Your task to perform on an android device: toggle improve location accuracy Image 0: 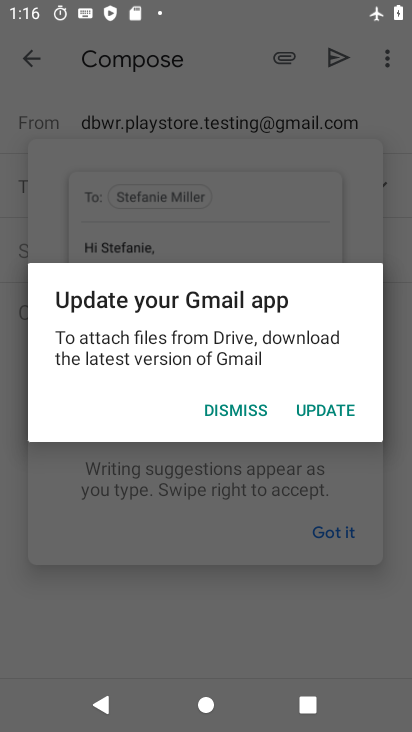
Step 0: press home button
Your task to perform on an android device: toggle improve location accuracy Image 1: 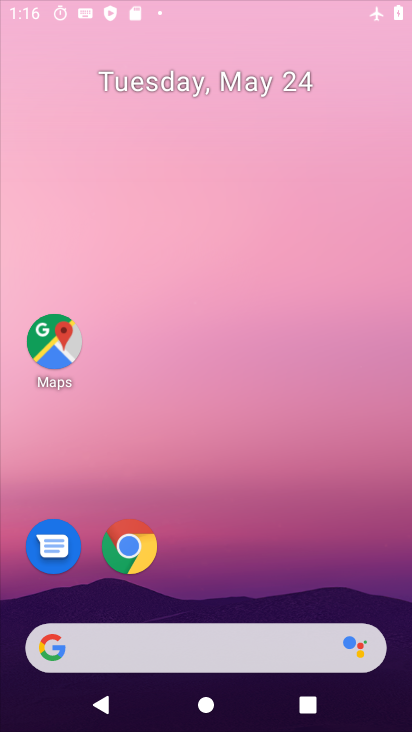
Step 1: drag from (240, 666) to (286, 129)
Your task to perform on an android device: toggle improve location accuracy Image 2: 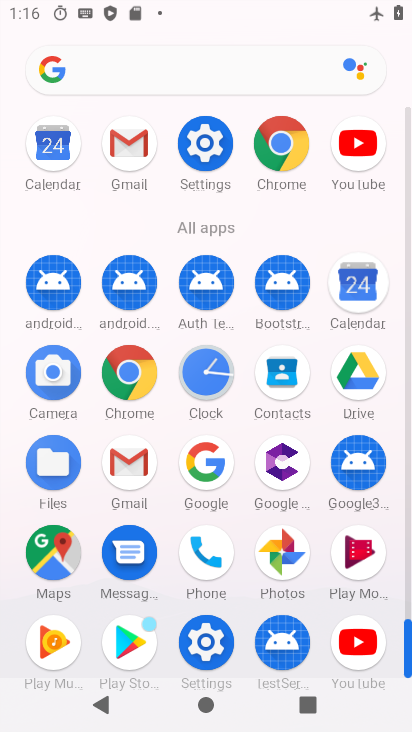
Step 2: click (206, 163)
Your task to perform on an android device: toggle improve location accuracy Image 3: 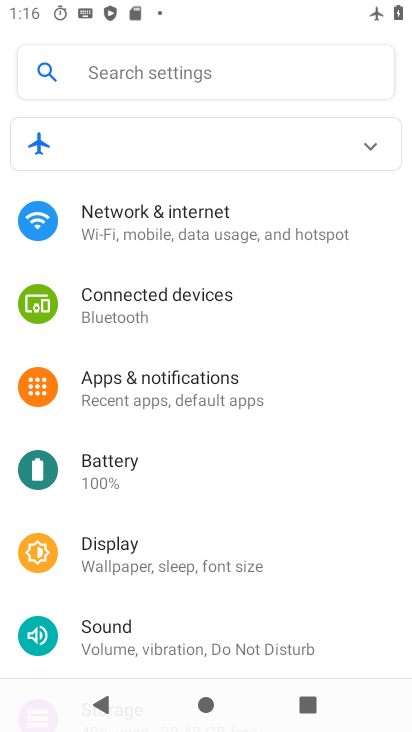
Step 3: drag from (231, 541) to (325, 84)
Your task to perform on an android device: toggle improve location accuracy Image 4: 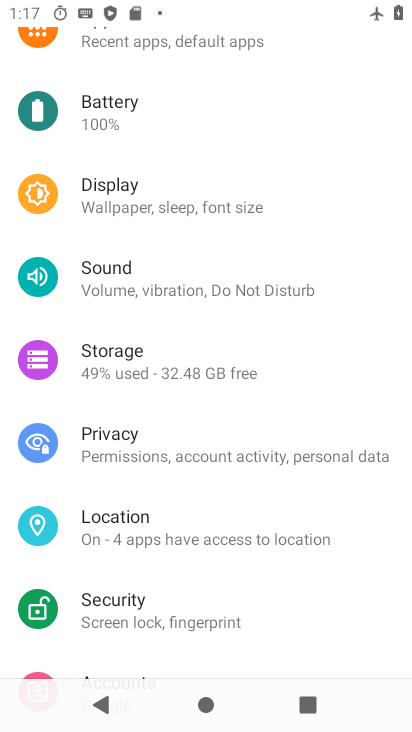
Step 4: click (175, 532)
Your task to perform on an android device: toggle improve location accuracy Image 5: 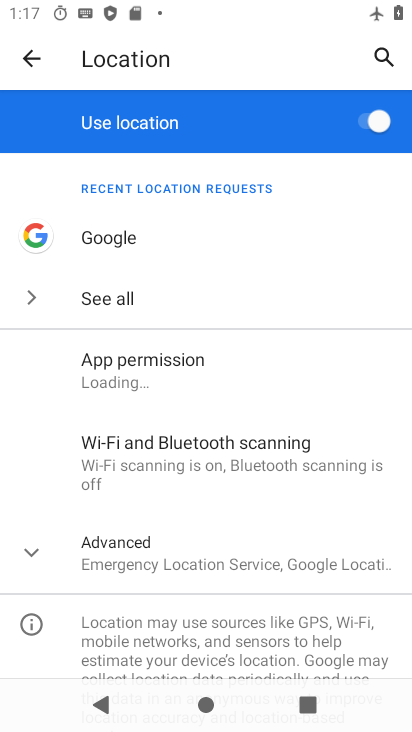
Step 5: click (161, 551)
Your task to perform on an android device: toggle improve location accuracy Image 6: 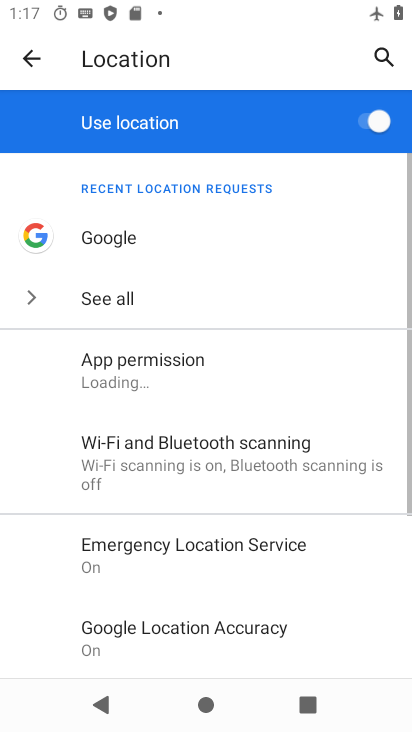
Step 6: drag from (162, 550) to (313, 6)
Your task to perform on an android device: toggle improve location accuracy Image 7: 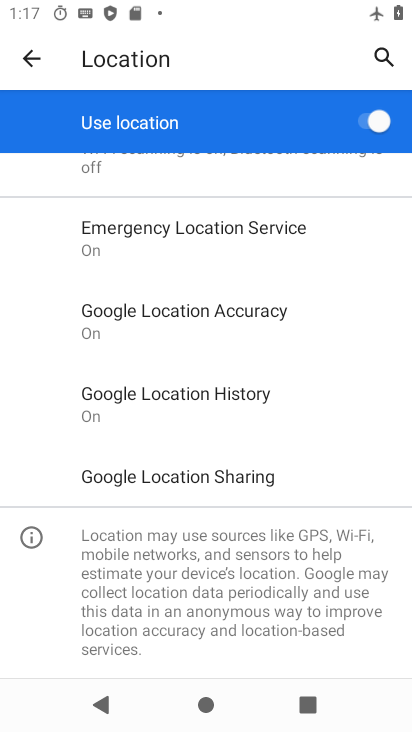
Step 7: click (215, 319)
Your task to perform on an android device: toggle improve location accuracy Image 8: 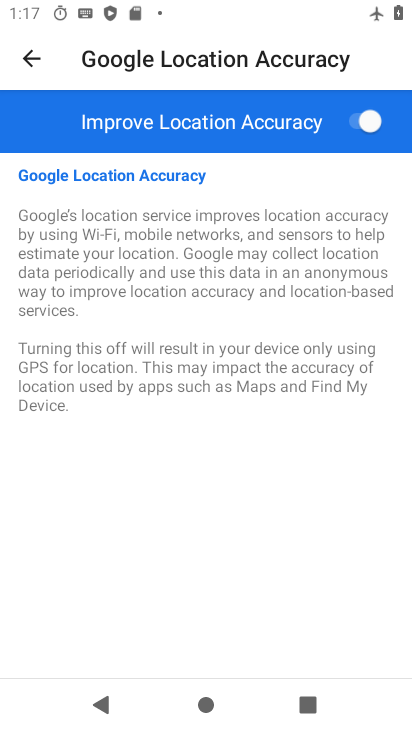
Step 8: click (339, 117)
Your task to perform on an android device: toggle improve location accuracy Image 9: 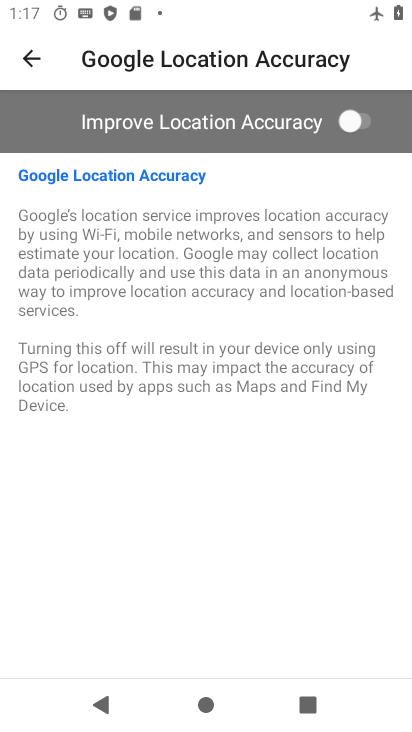
Step 9: task complete